Your task to perform on an android device: Go to notification settings Image 0: 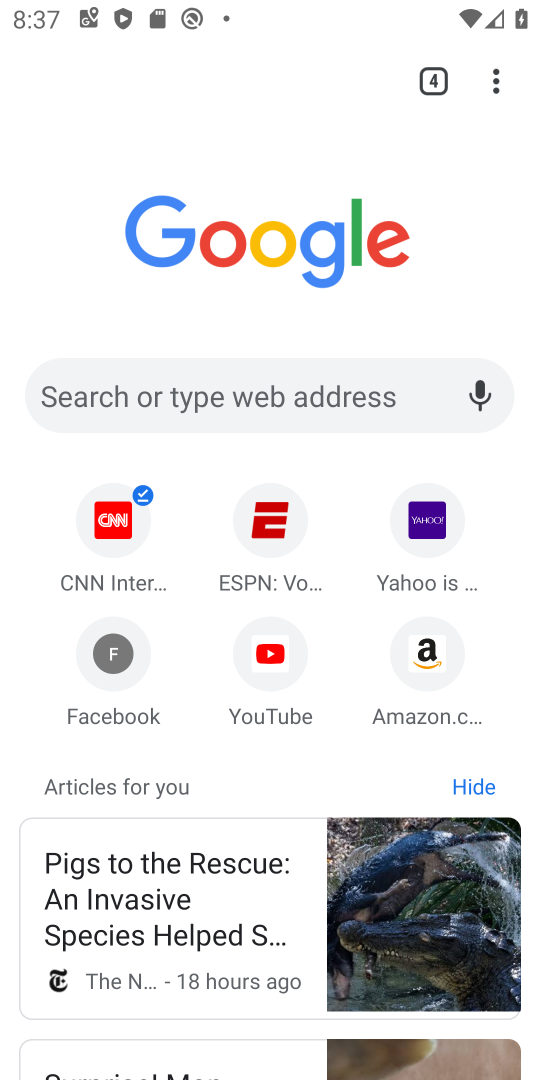
Step 0: press home button
Your task to perform on an android device: Go to notification settings Image 1: 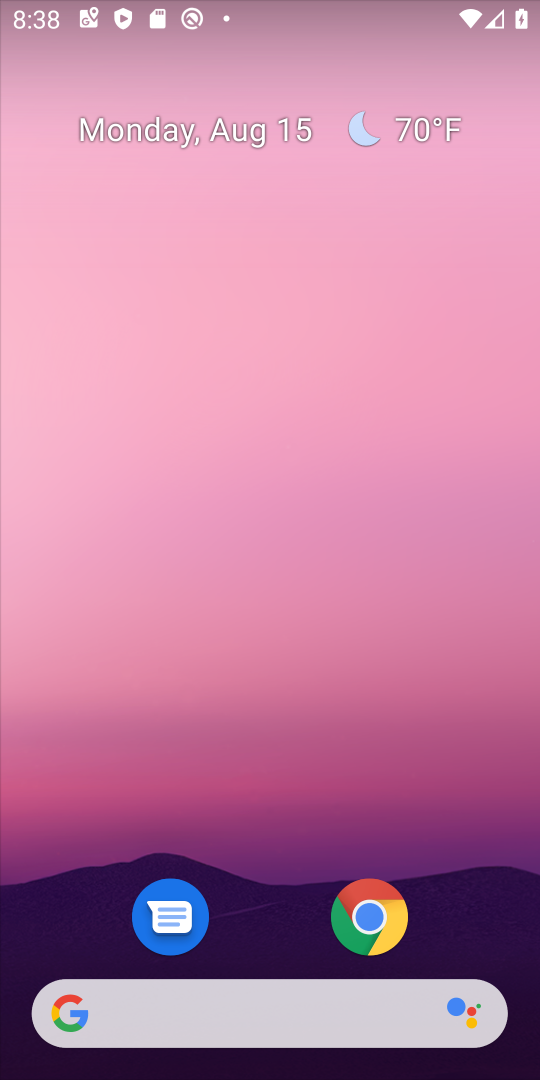
Step 1: drag from (281, 853) to (345, 3)
Your task to perform on an android device: Go to notification settings Image 2: 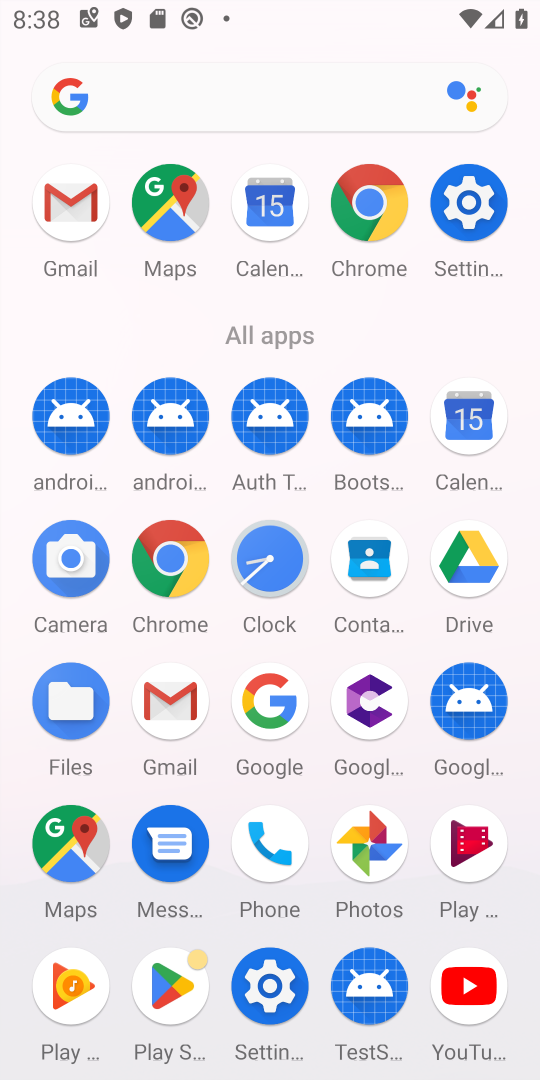
Step 2: click (473, 207)
Your task to perform on an android device: Go to notification settings Image 3: 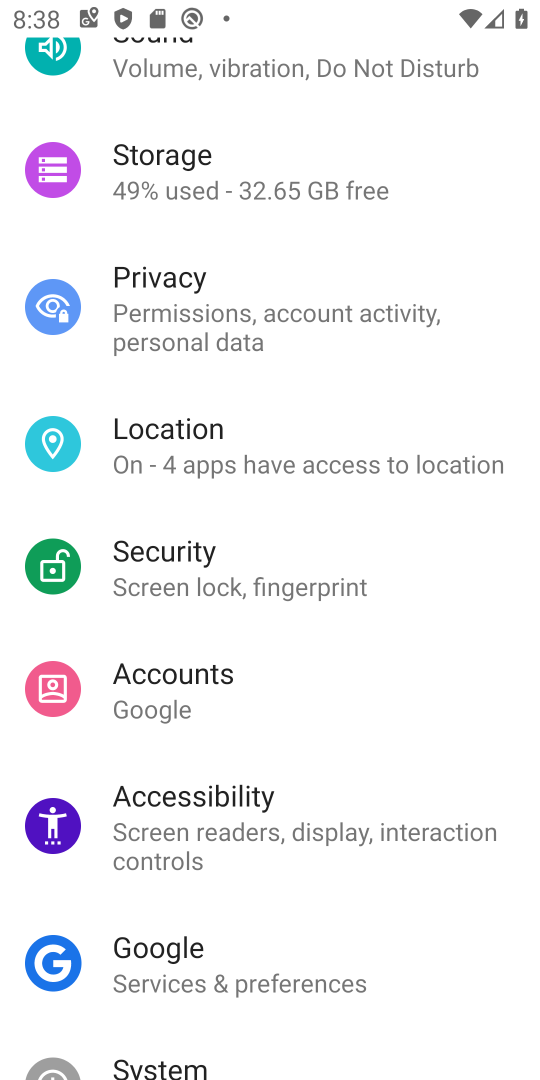
Step 3: drag from (278, 221) to (322, 878)
Your task to perform on an android device: Go to notification settings Image 4: 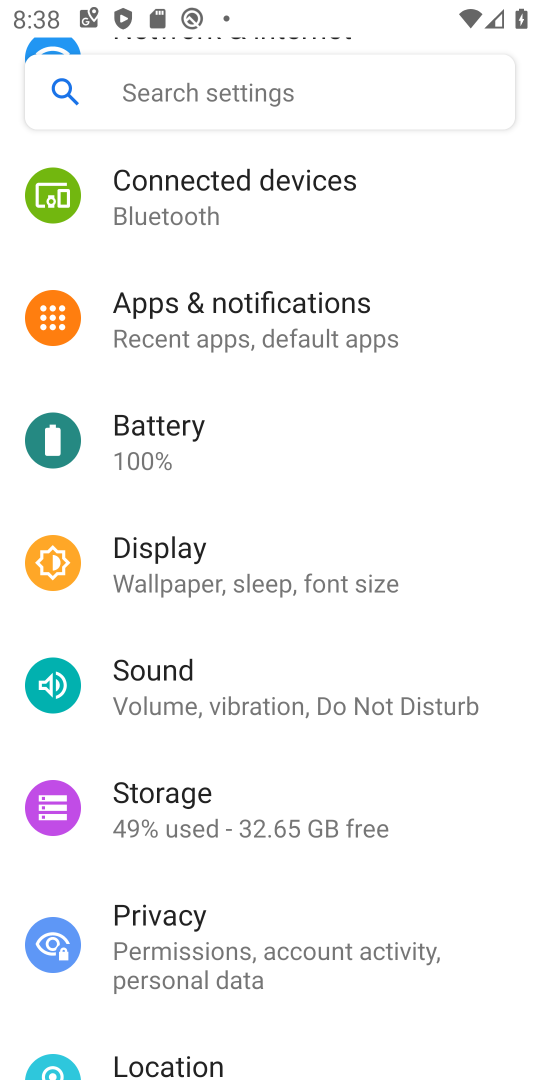
Step 4: click (259, 322)
Your task to perform on an android device: Go to notification settings Image 5: 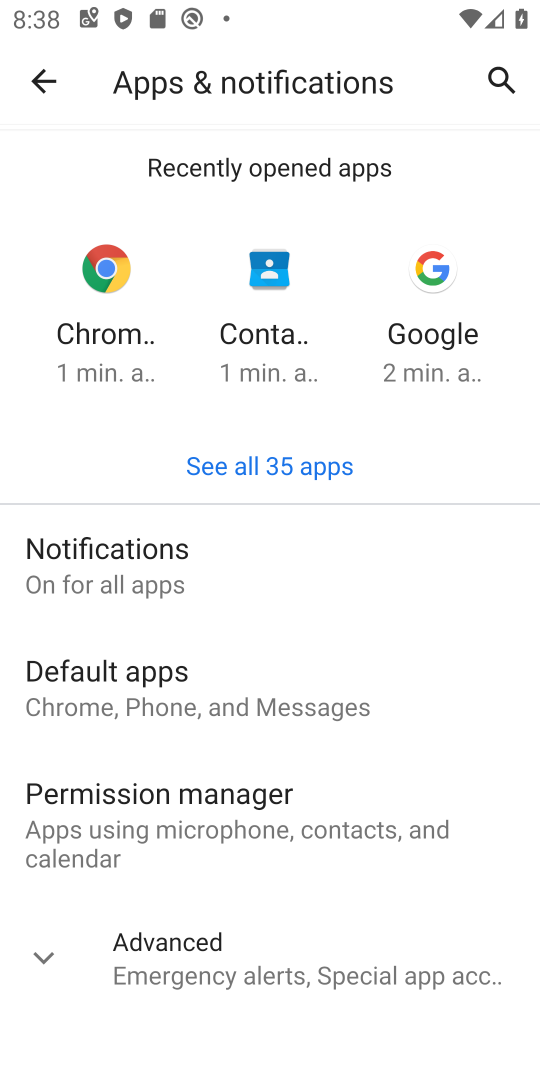
Step 5: click (167, 552)
Your task to perform on an android device: Go to notification settings Image 6: 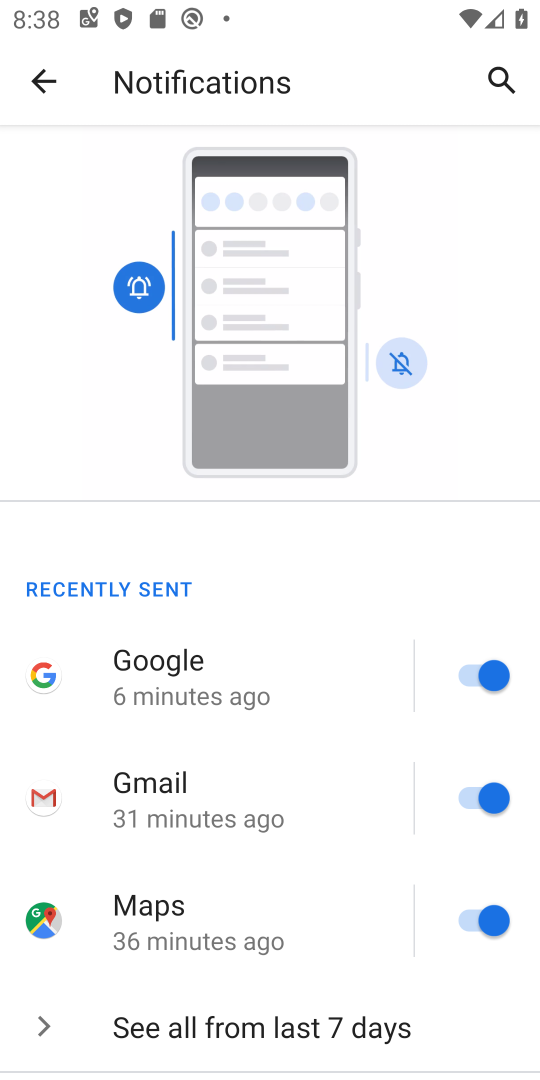
Step 6: task complete